Your task to perform on an android device: allow notifications from all sites in the chrome app Image 0: 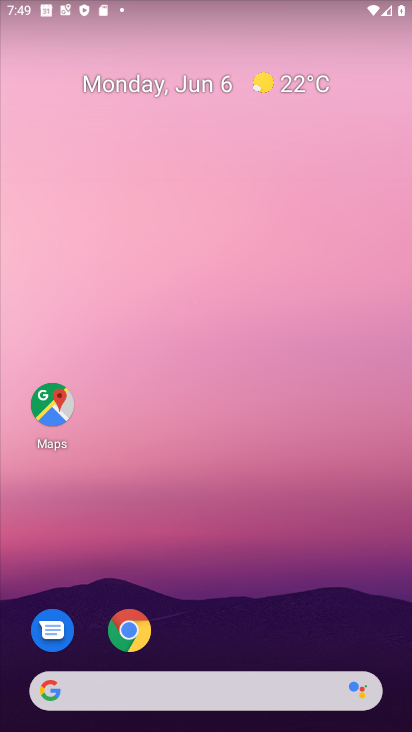
Step 0: click (117, 641)
Your task to perform on an android device: allow notifications from all sites in the chrome app Image 1: 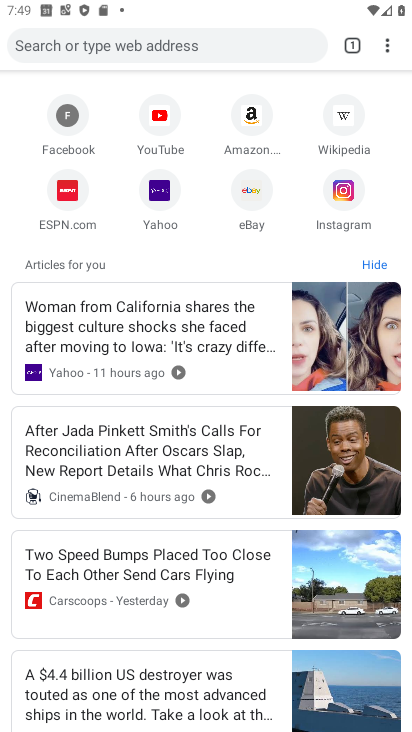
Step 1: click (379, 42)
Your task to perform on an android device: allow notifications from all sites in the chrome app Image 2: 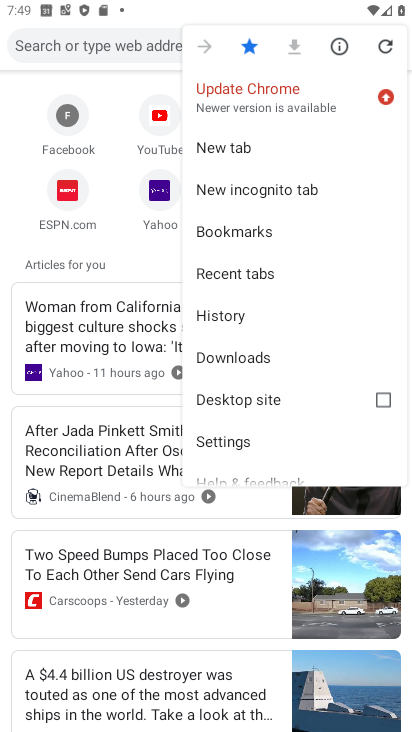
Step 2: click (212, 439)
Your task to perform on an android device: allow notifications from all sites in the chrome app Image 3: 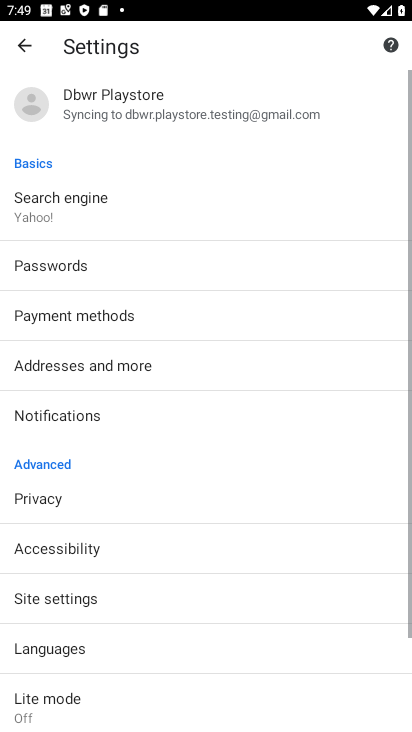
Step 3: click (65, 414)
Your task to perform on an android device: allow notifications from all sites in the chrome app Image 4: 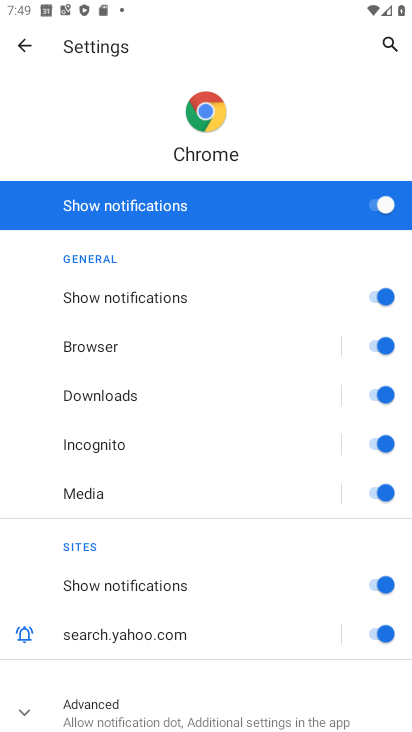
Step 4: click (249, 700)
Your task to perform on an android device: allow notifications from all sites in the chrome app Image 5: 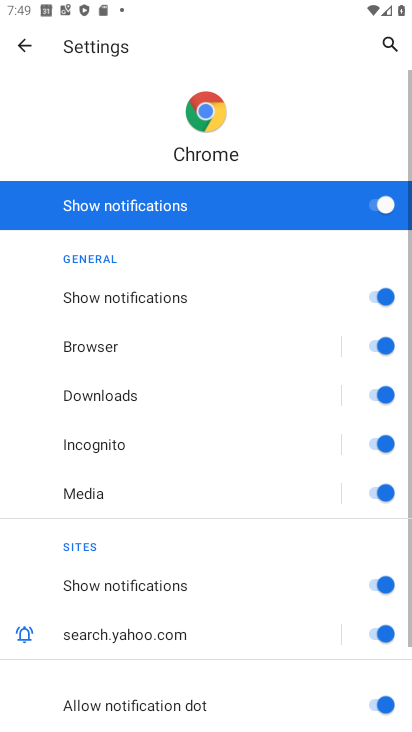
Step 5: task complete